Your task to perform on an android device: Open Google Chrome and click the shortcut for Amazon.com Image 0: 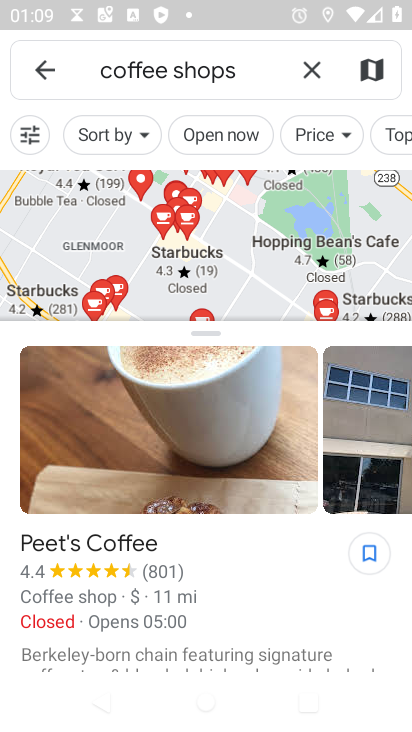
Step 0: press home button
Your task to perform on an android device: Open Google Chrome and click the shortcut for Amazon.com Image 1: 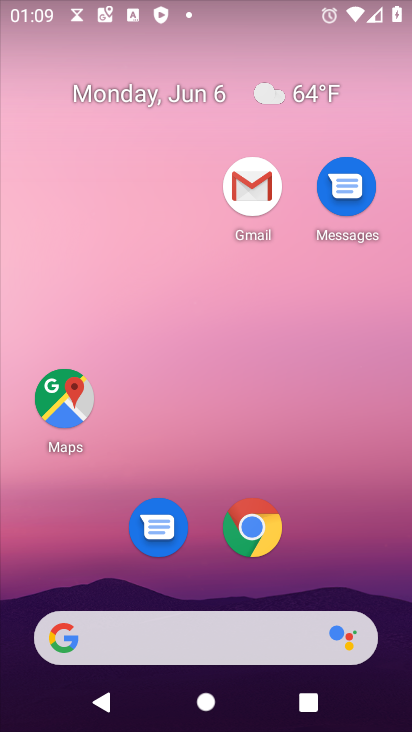
Step 1: click (247, 528)
Your task to perform on an android device: Open Google Chrome and click the shortcut for Amazon.com Image 2: 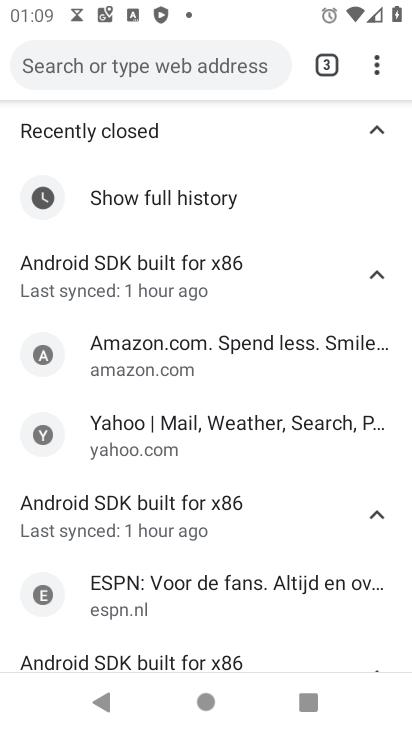
Step 2: click (330, 58)
Your task to perform on an android device: Open Google Chrome and click the shortcut for Amazon.com Image 3: 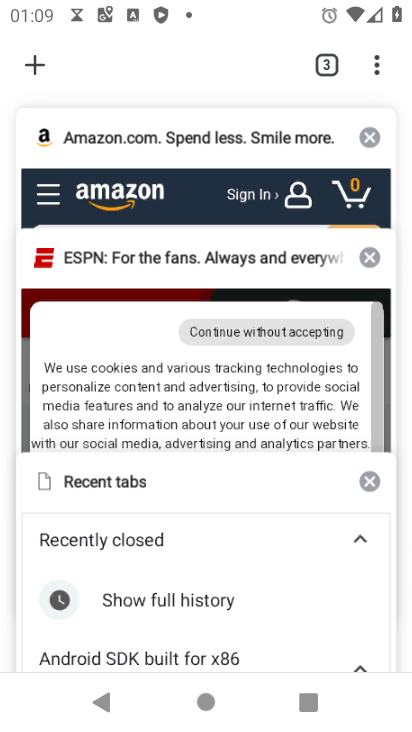
Step 3: click (228, 175)
Your task to perform on an android device: Open Google Chrome and click the shortcut for Amazon.com Image 4: 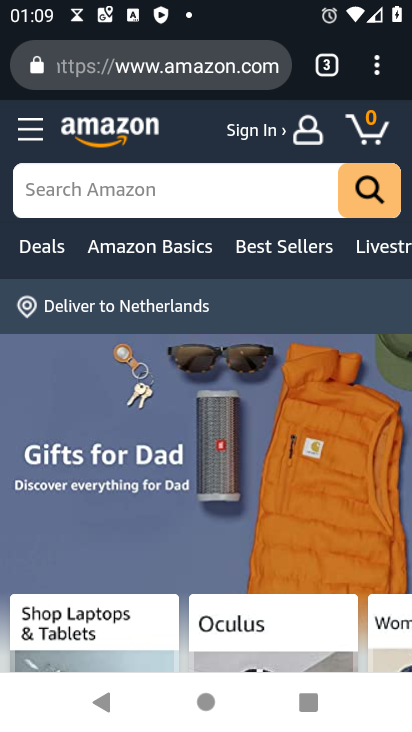
Step 4: task complete